Your task to perform on an android device: Open Google Image 0: 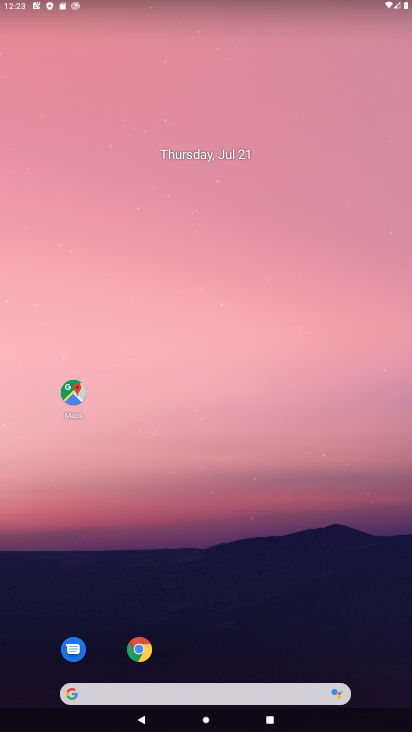
Step 0: click (138, 649)
Your task to perform on an android device: Open Google Image 1: 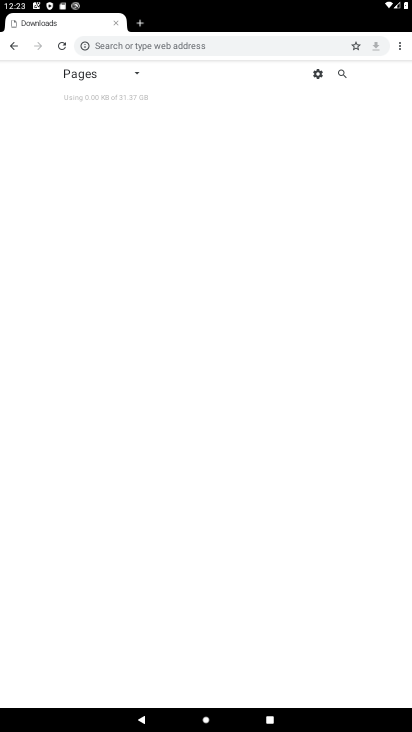
Step 1: task complete